Your task to perform on an android device: Empty the shopping cart on amazon. Image 0: 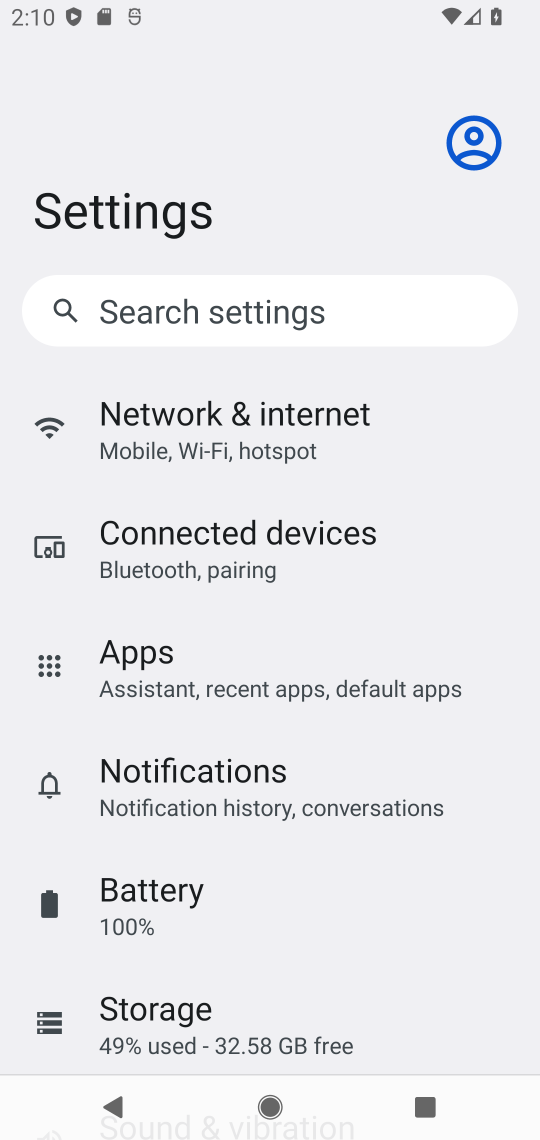
Step 0: press home button
Your task to perform on an android device: Empty the shopping cart on amazon. Image 1: 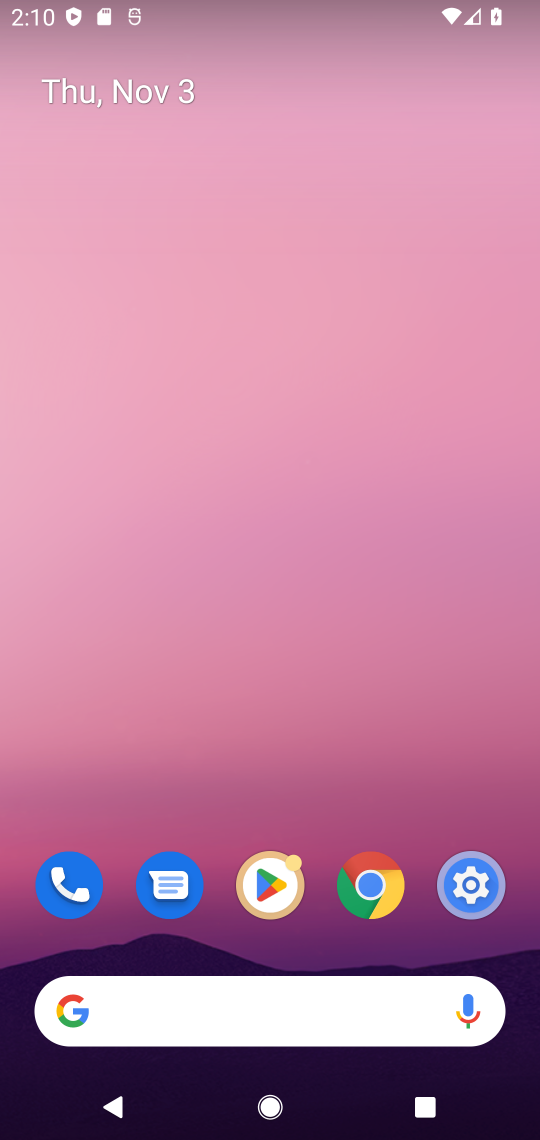
Step 1: click (374, 877)
Your task to perform on an android device: Empty the shopping cart on amazon. Image 2: 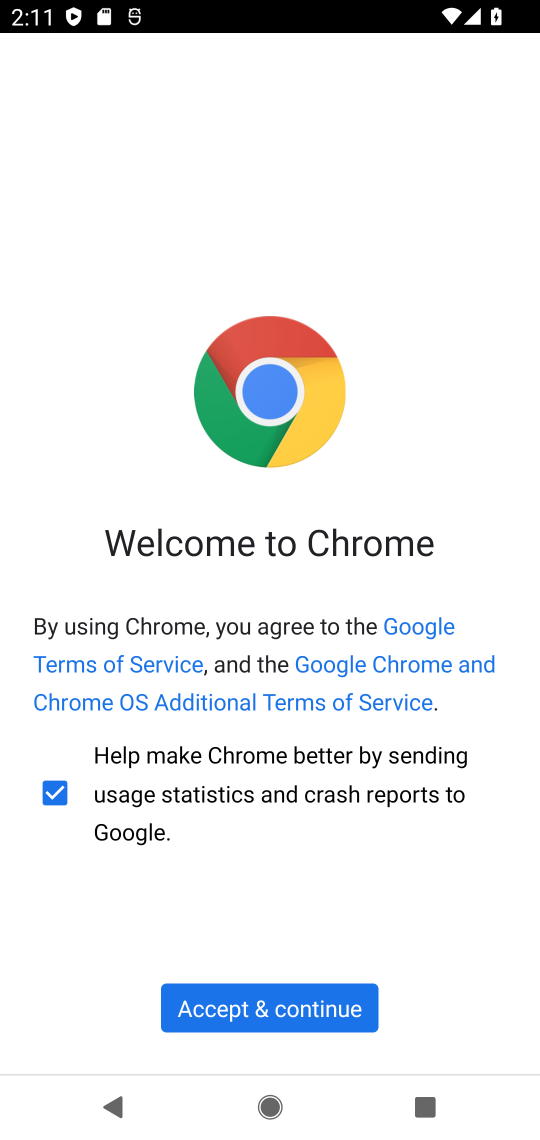
Step 2: click (313, 1004)
Your task to perform on an android device: Empty the shopping cart on amazon. Image 3: 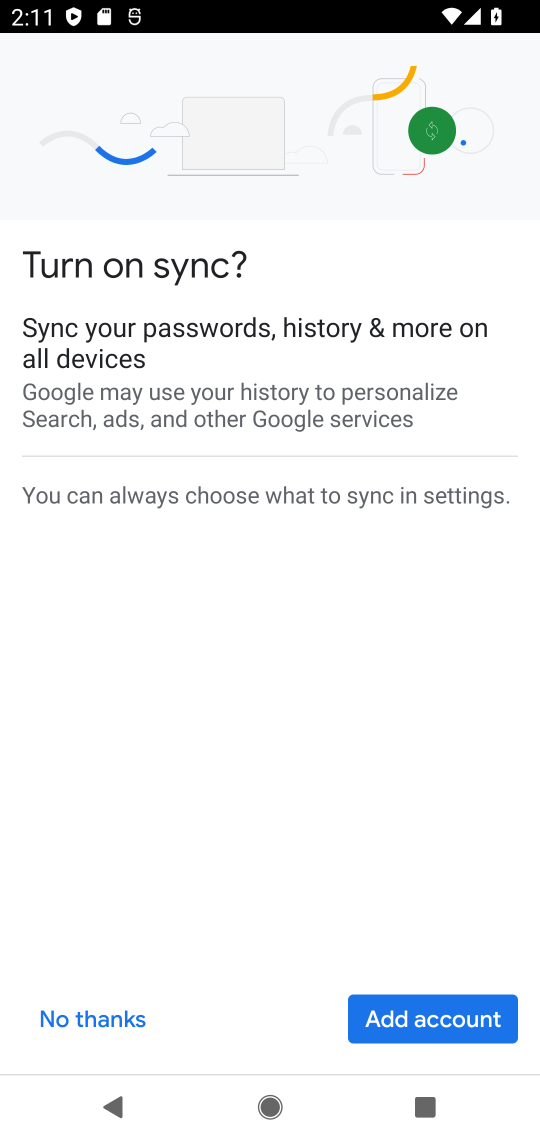
Step 3: click (125, 1016)
Your task to perform on an android device: Empty the shopping cart on amazon. Image 4: 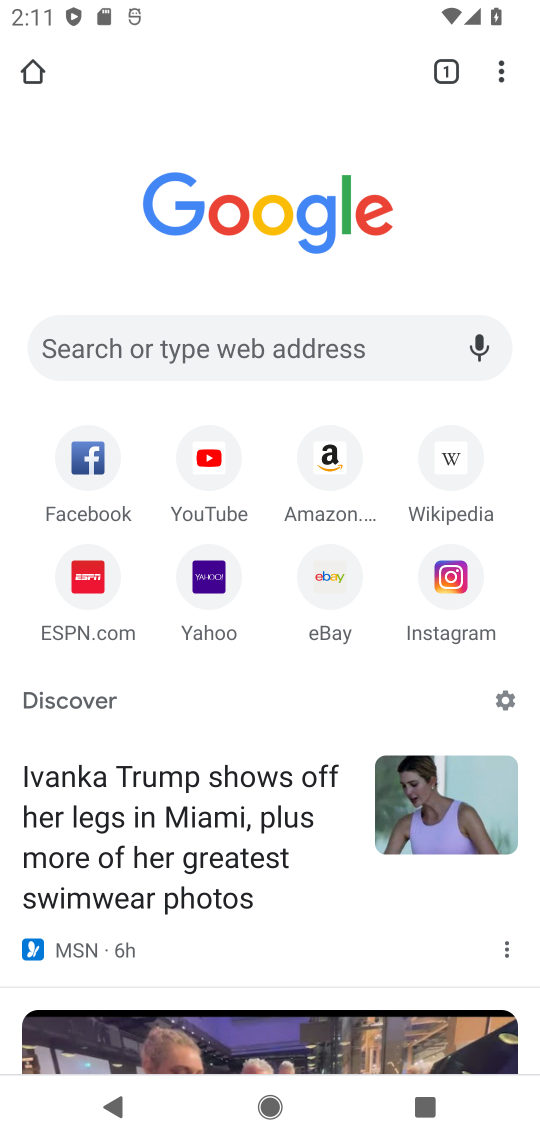
Step 4: click (319, 467)
Your task to perform on an android device: Empty the shopping cart on amazon. Image 5: 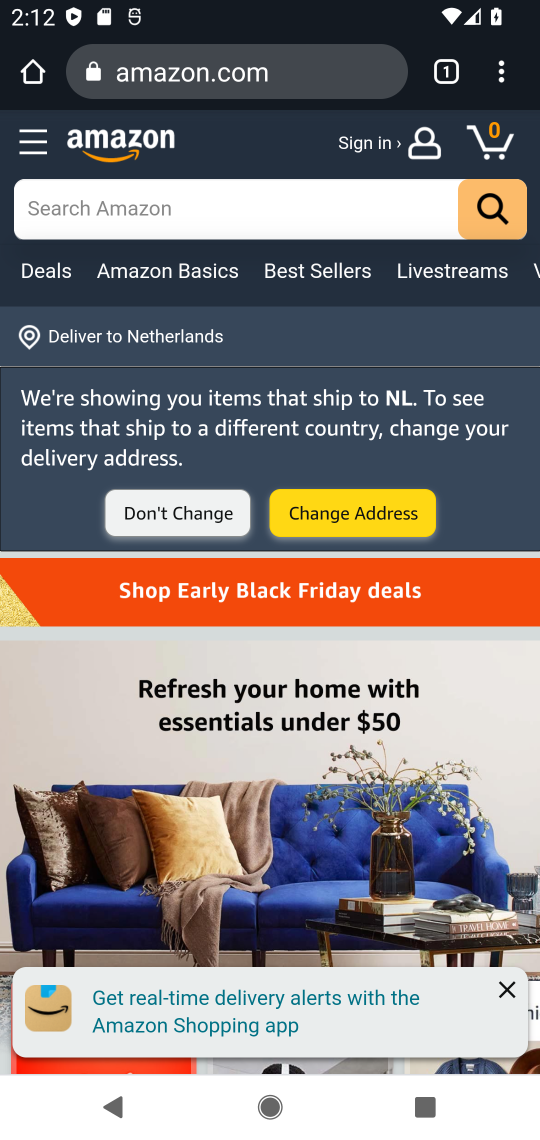
Step 5: click (502, 129)
Your task to perform on an android device: Empty the shopping cart on amazon. Image 6: 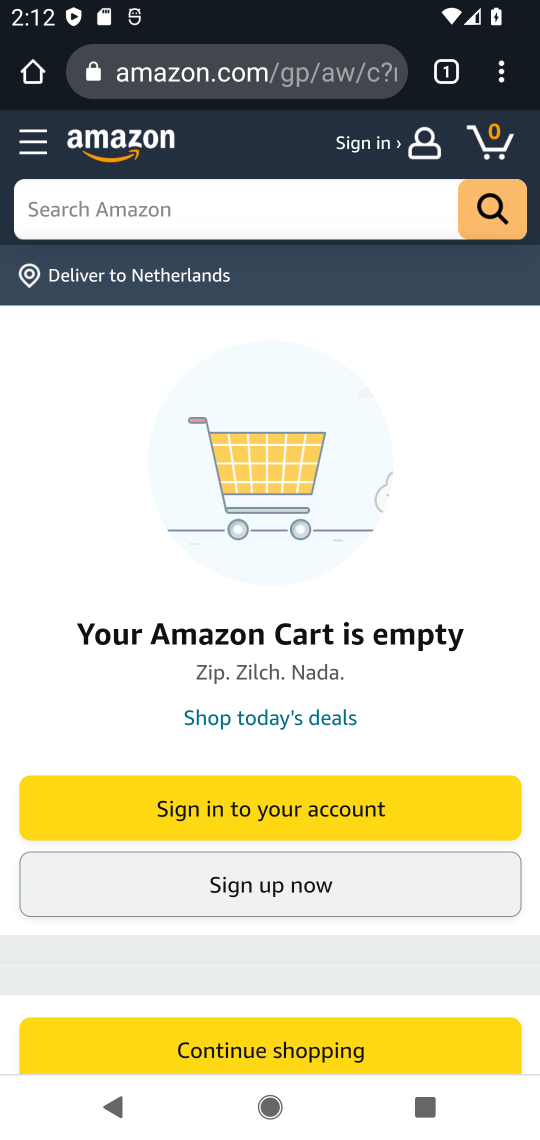
Step 6: task complete